Your task to perform on an android device: search for starred emails in the gmail app Image 0: 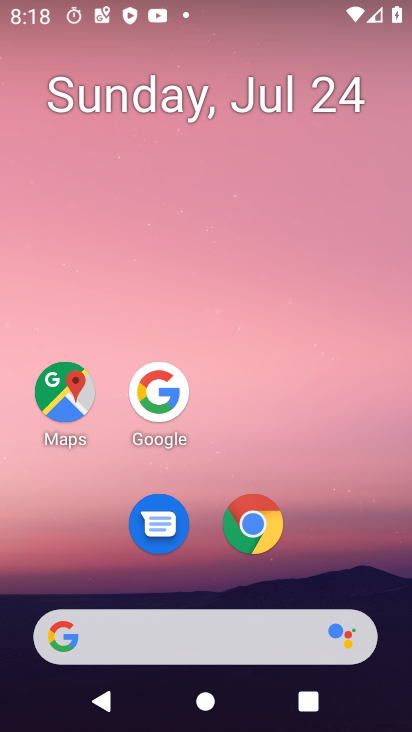
Step 0: press home button
Your task to perform on an android device: search for starred emails in the gmail app Image 1: 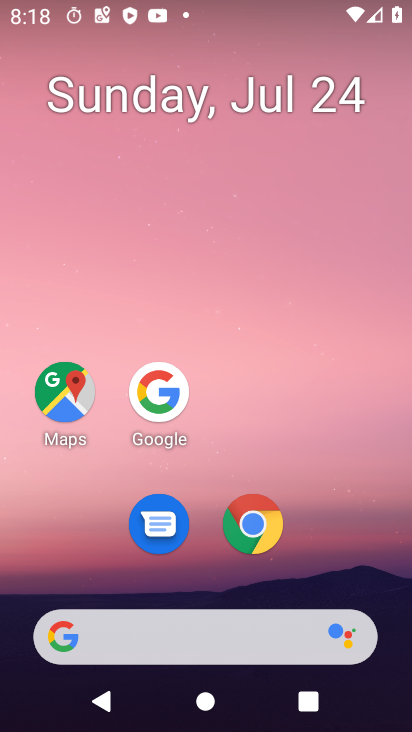
Step 1: drag from (165, 642) to (241, 111)
Your task to perform on an android device: search for starred emails in the gmail app Image 2: 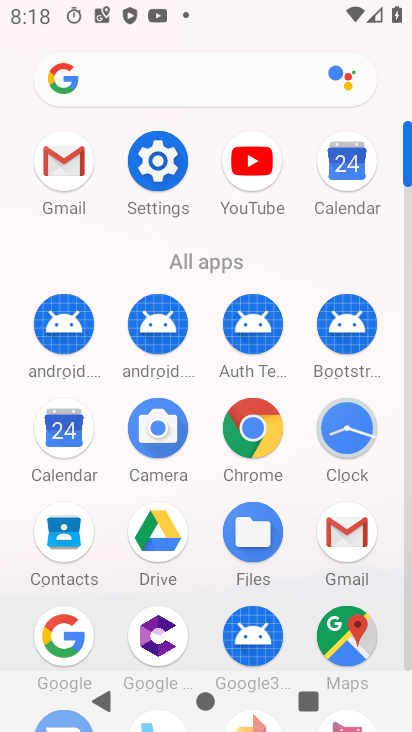
Step 2: click (68, 176)
Your task to perform on an android device: search for starred emails in the gmail app Image 3: 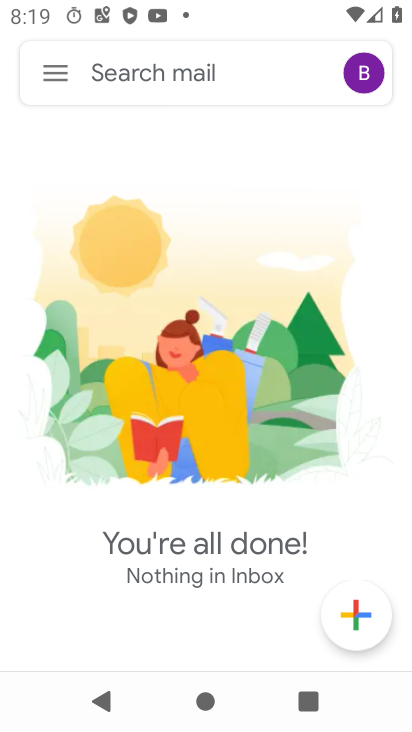
Step 3: task complete